Your task to perform on an android device: Turn off the flashlight Image 0: 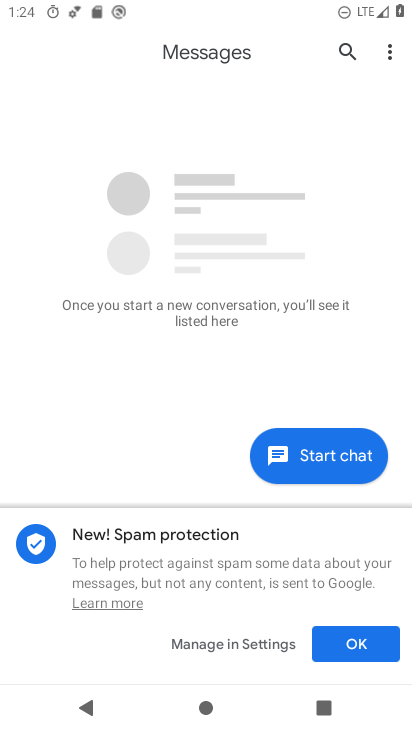
Step 0: press home button
Your task to perform on an android device: Turn off the flashlight Image 1: 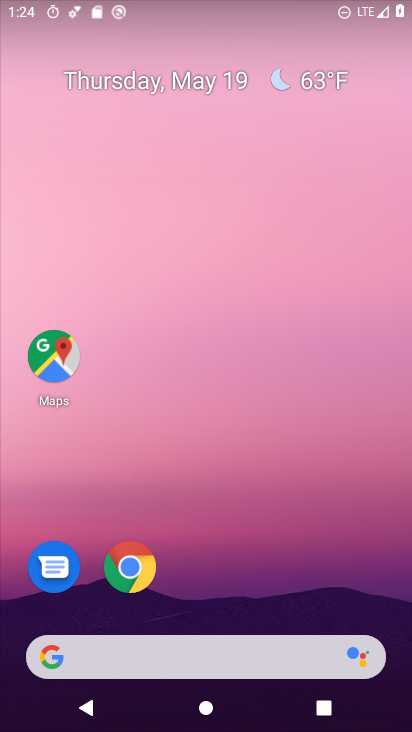
Step 1: task complete